Your task to perform on an android device: Go to battery settings Image 0: 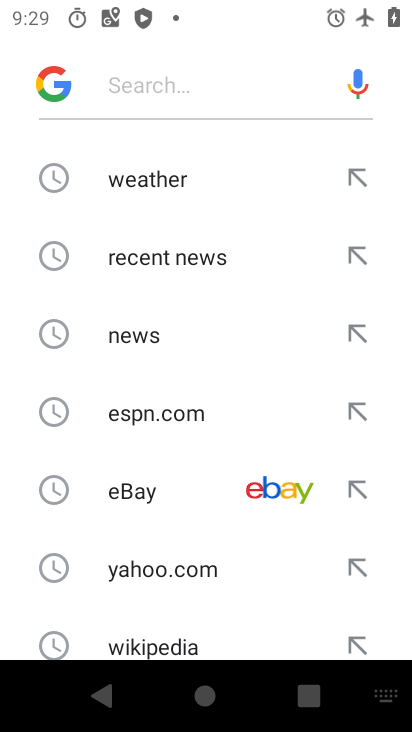
Step 0: press home button
Your task to perform on an android device: Go to battery settings Image 1: 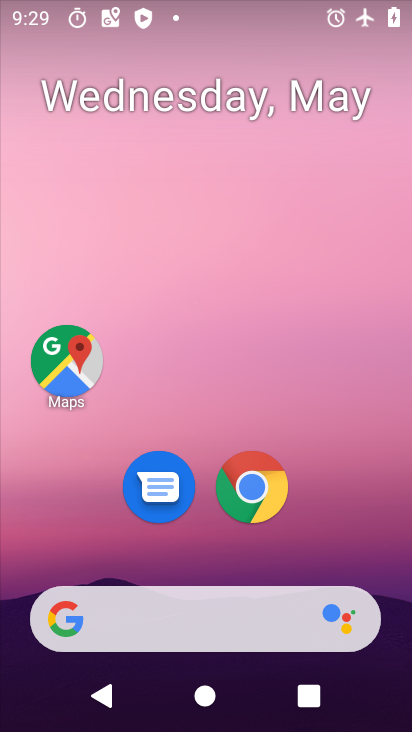
Step 1: drag from (226, 564) to (238, 161)
Your task to perform on an android device: Go to battery settings Image 2: 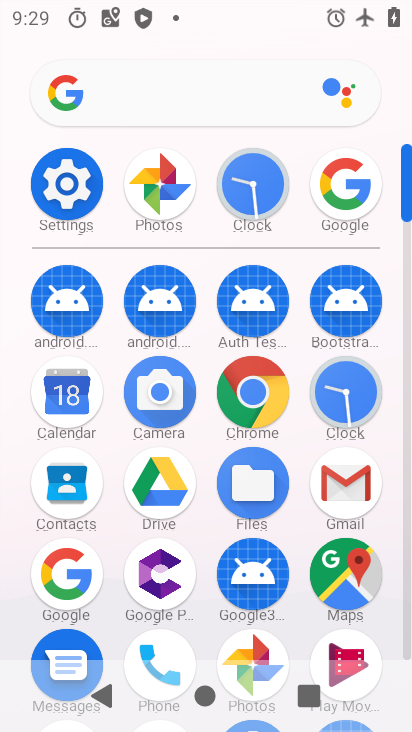
Step 2: click (81, 179)
Your task to perform on an android device: Go to battery settings Image 3: 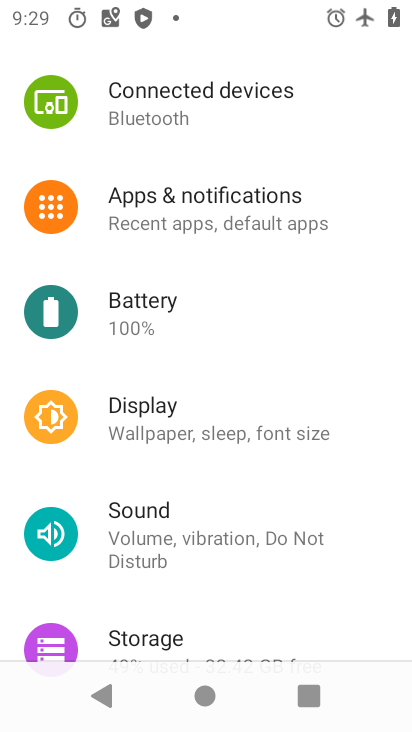
Step 3: click (166, 321)
Your task to perform on an android device: Go to battery settings Image 4: 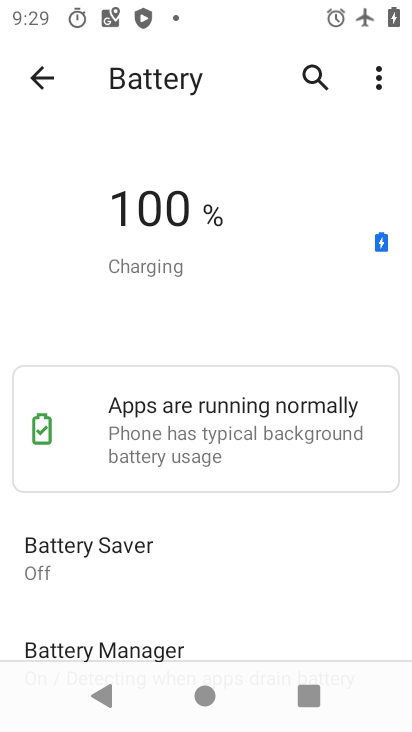
Step 4: task complete